Your task to perform on an android device: turn pop-ups off in chrome Image 0: 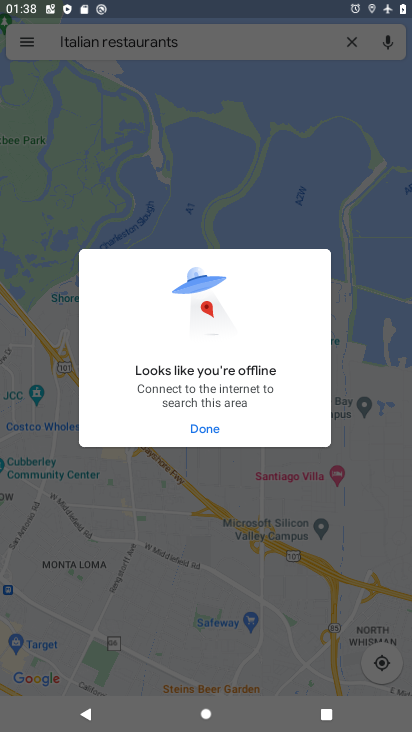
Step 0: press home button
Your task to perform on an android device: turn pop-ups off in chrome Image 1: 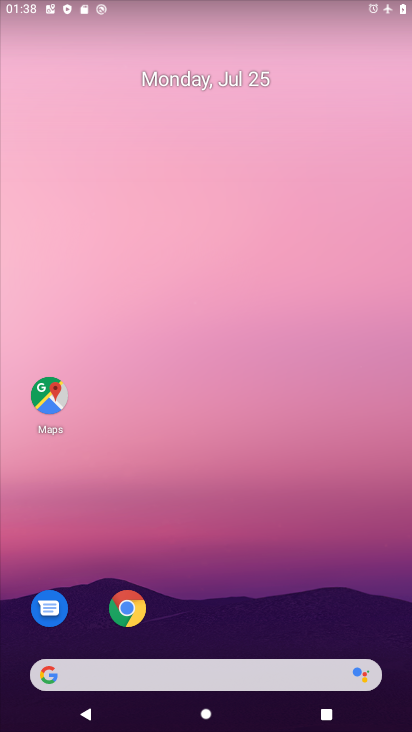
Step 1: drag from (232, 645) to (242, 93)
Your task to perform on an android device: turn pop-ups off in chrome Image 2: 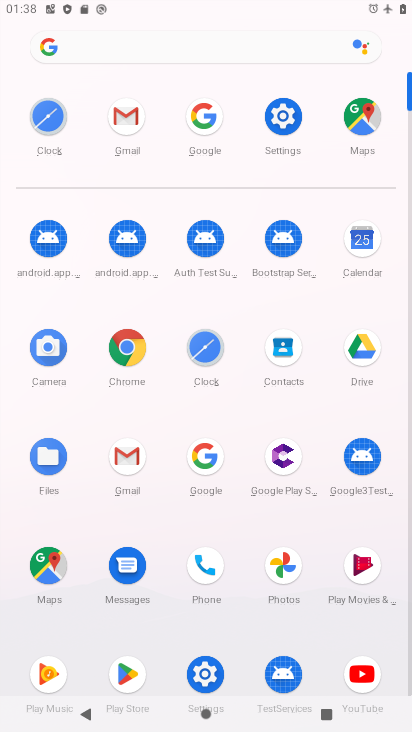
Step 2: click (120, 351)
Your task to perform on an android device: turn pop-ups off in chrome Image 3: 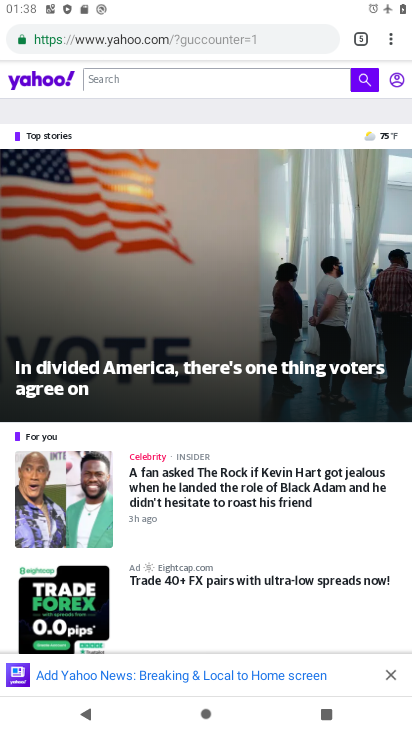
Step 3: drag from (385, 42) to (272, 429)
Your task to perform on an android device: turn pop-ups off in chrome Image 4: 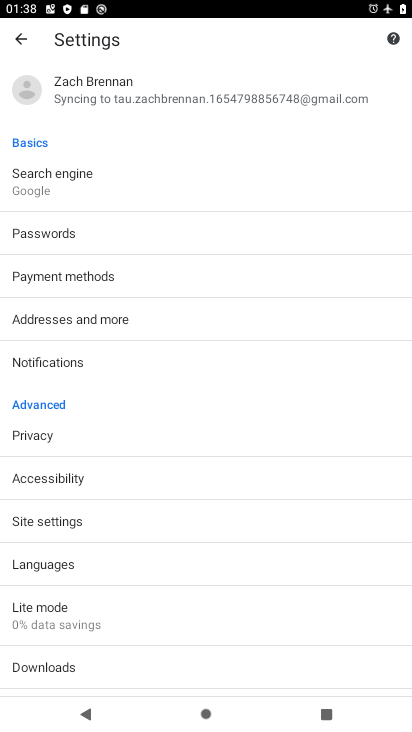
Step 4: click (63, 515)
Your task to perform on an android device: turn pop-ups off in chrome Image 5: 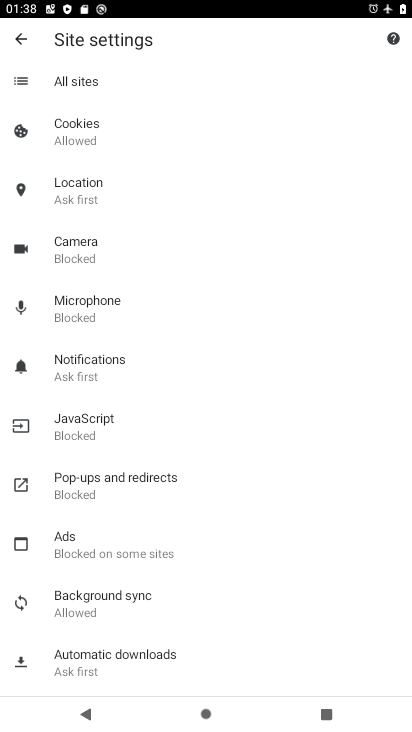
Step 5: click (126, 489)
Your task to perform on an android device: turn pop-ups off in chrome Image 6: 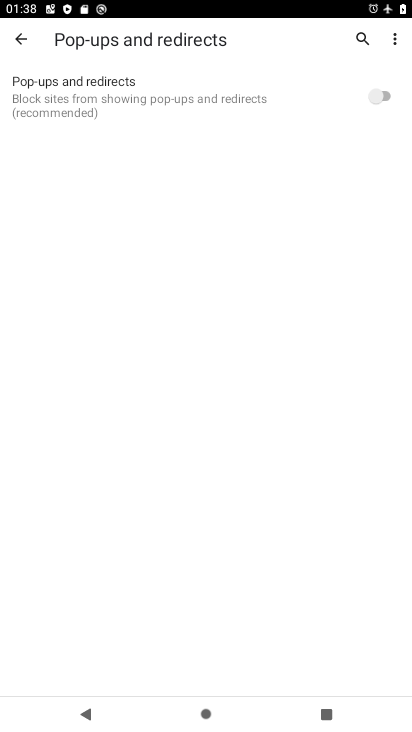
Step 6: click (380, 91)
Your task to perform on an android device: turn pop-ups off in chrome Image 7: 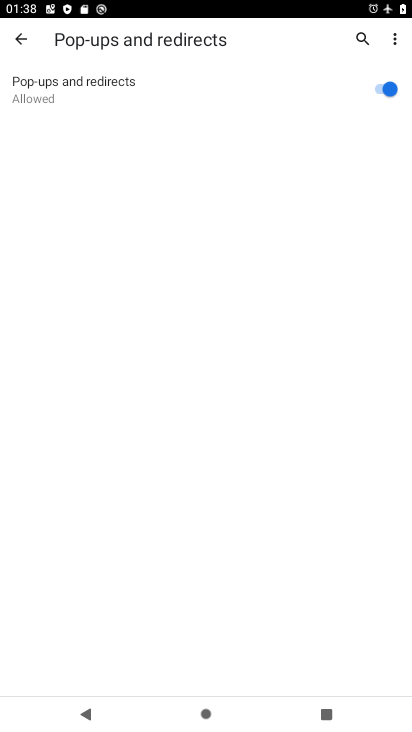
Step 7: task complete